Your task to perform on an android device: choose inbox layout in the gmail app Image 0: 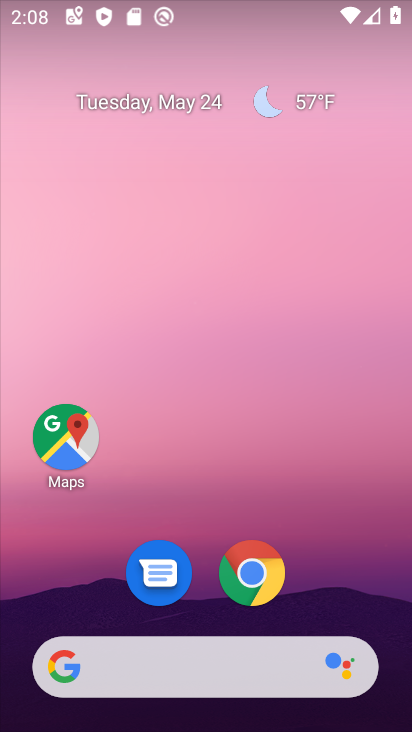
Step 0: click (395, 599)
Your task to perform on an android device: choose inbox layout in the gmail app Image 1: 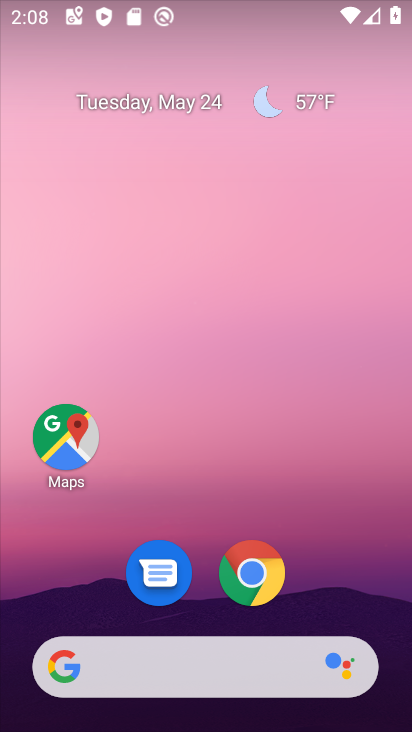
Step 1: drag from (368, 597) to (316, 227)
Your task to perform on an android device: choose inbox layout in the gmail app Image 2: 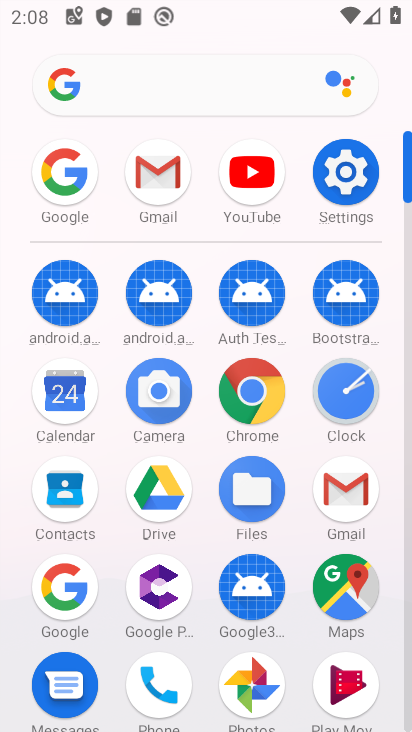
Step 2: click (323, 518)
Your task to perform on an android device: choose inbox layout in the gmail app Image 3: 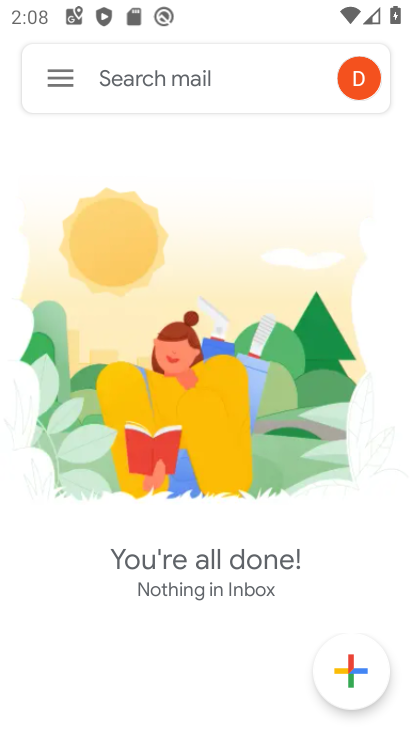
Step 3: click (64, 86)
Your task to perform on an android device: choose inbox layout in the gmail app Image 4: 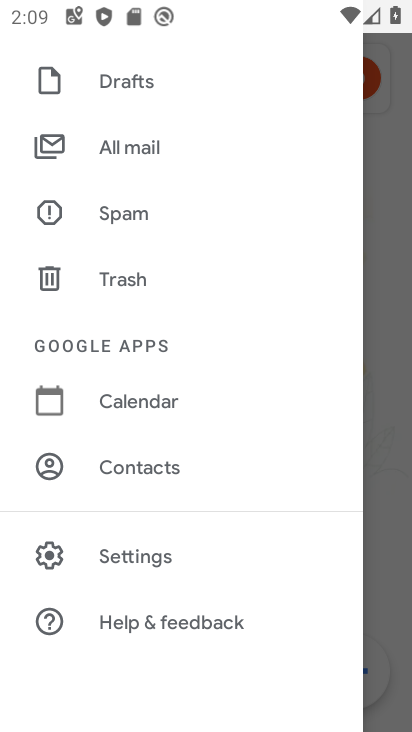
Step 4: click (173, 555)
Your task to perform on an android device: choose inbox layout in the gmail app Image 5: 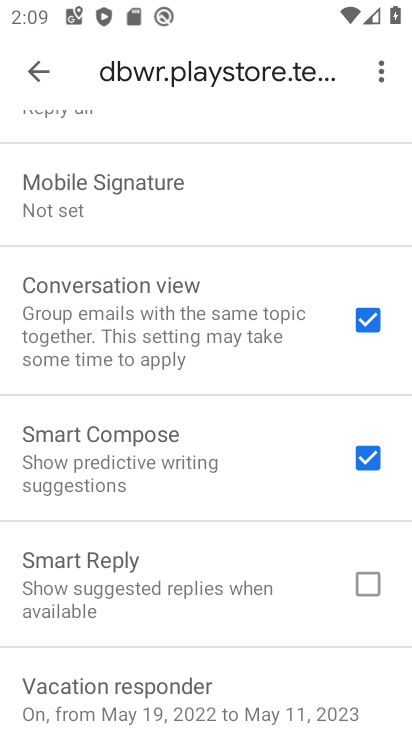
Step 5: drag from (199, 177) to (347, 716)
Your task to perform on an android device: choose inbox layout in the gmail app Image 6: 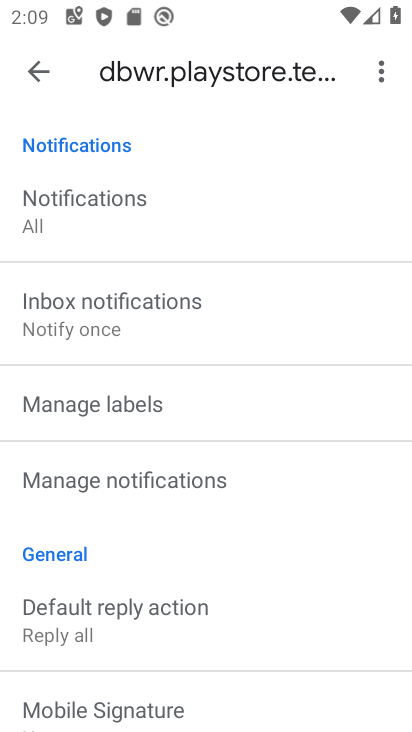
Step 6: drag from (250, 165) to (324, 677)
Your task to perform on an android device: choose inbox layout in the gmail app Image 7: 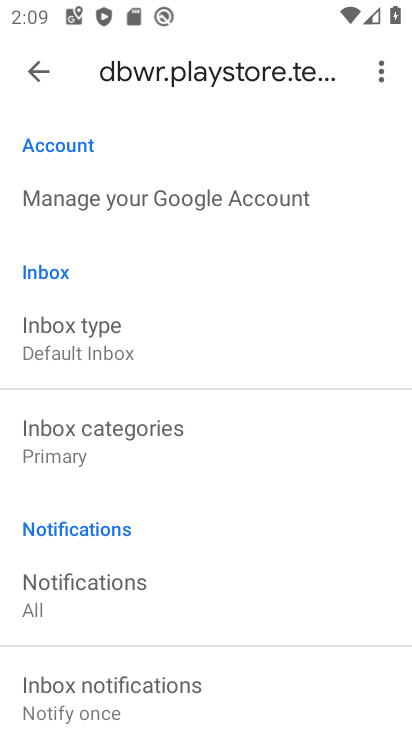
Step 7: click (171, 333)
Your task to perform on an android device: choose inbox layout in the gmail app Image 8: 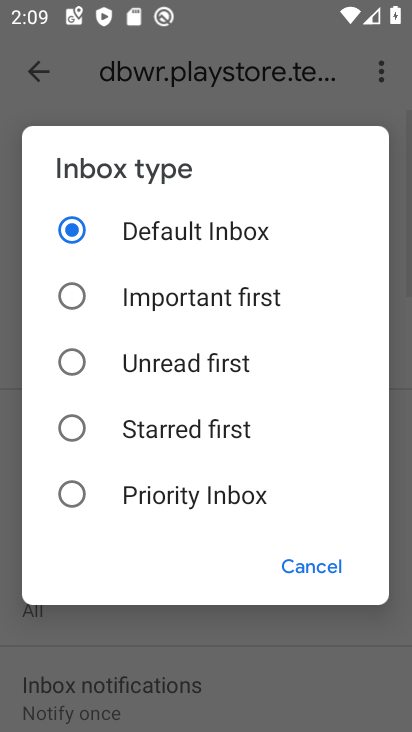
Step 8: click (237, 438)
Your task to perform on an android device: choose inbox layout in the gmail app Image 9: 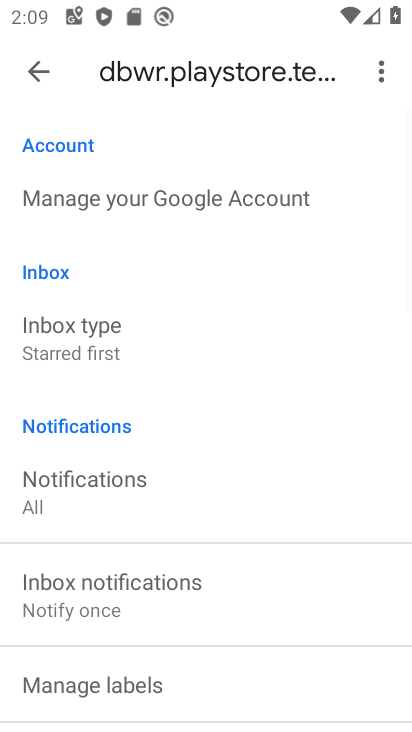
Step 9: task complete